Your task to perform on an android device: toggle translation in the chrome app Image 0: 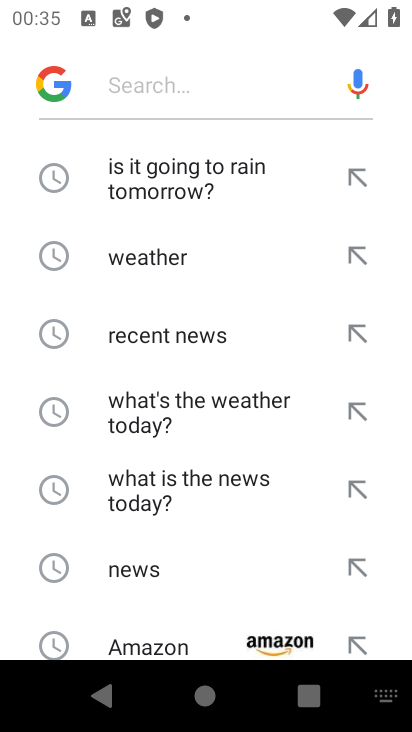
Step 0: press home button
Your task to perform on an android device: toggle translation in the chrome app Image 1: 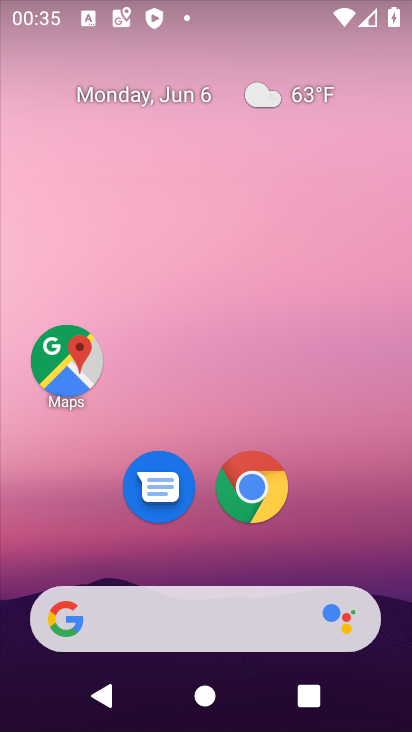
Step 1: click (248, 486)
Your task to perform on an android device: toggle translation in the chrome app Image 2: 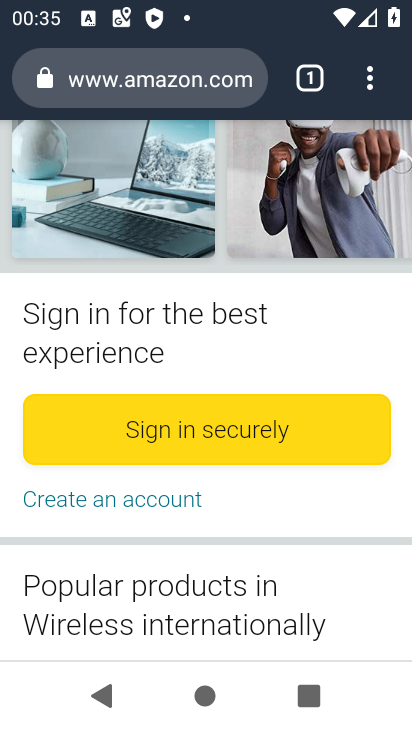
Step 2: click (367, 85)
Your task to perform on an android device: toggle translation in the chrome app Image 3: 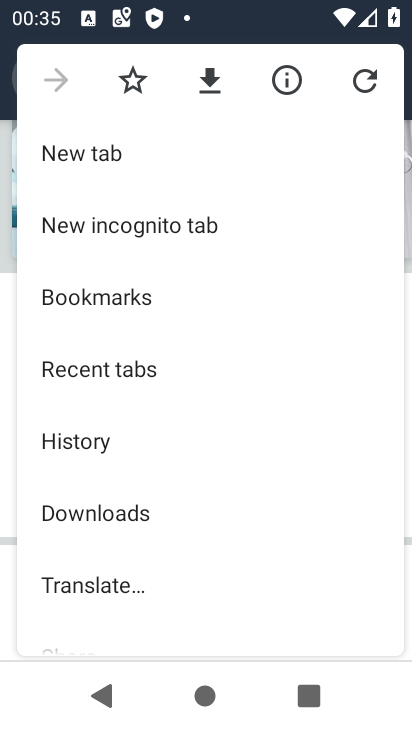
Step 3: drag from (207, 298) to (224, 181)
Your task to perform on an android device: toggle translation in the chrome app Image 4: 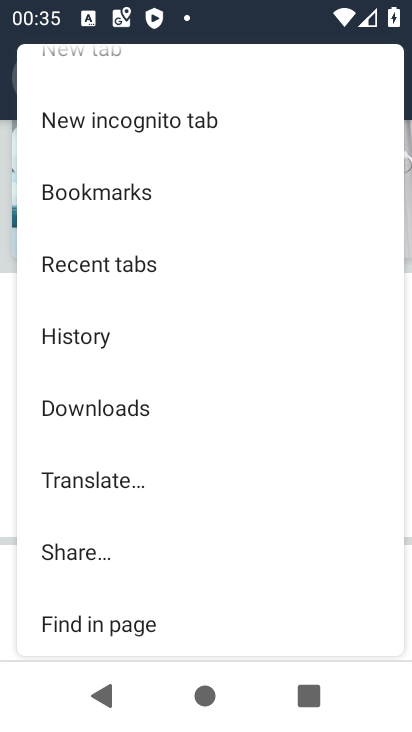
Step 4: drag from (221, 375) to (227, 150)
Your task to perform on an android device: toggle translation in the chrome app Image 5: 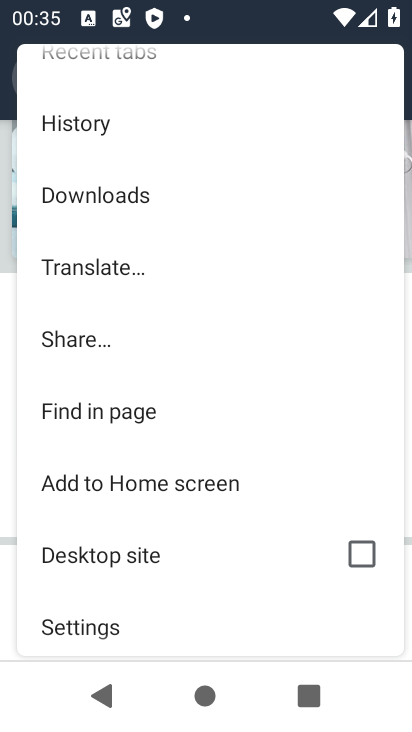
Step 5: drag from (212, 647) to (266, 205)
Your task to perform on an android device: toggle translation in the chrome app Image 6: 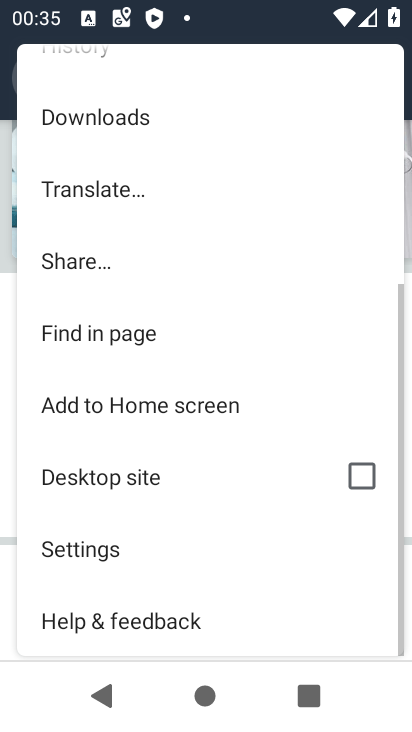
Step 6: click (82, 551)
Your task to perform on an android device: toggle translation in the chrome app Image 7: 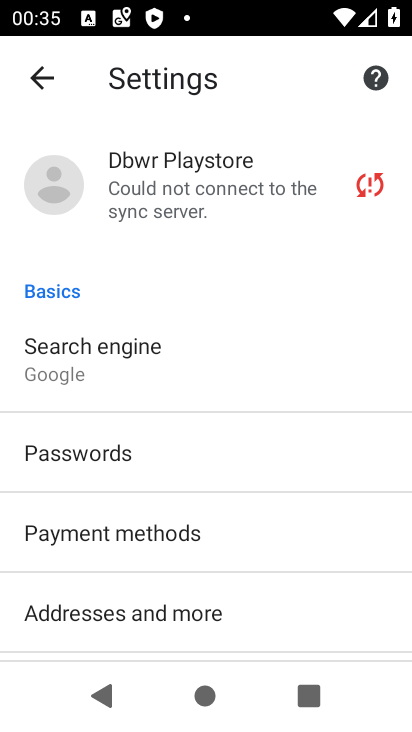
Step 7: drag from (280, 627) to (226, 51)
Your task to perform on an android device: toggle translation in the chrome app Image 8: 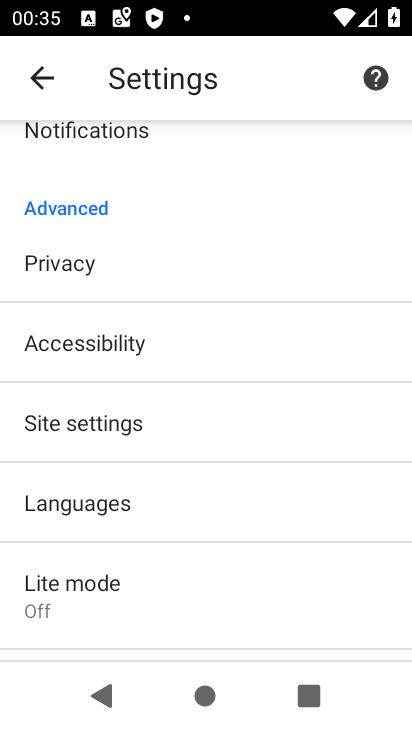
Step 8: click (77, 496)
Your task to perform on an android device: toggle translation in the chrome app Image 9: 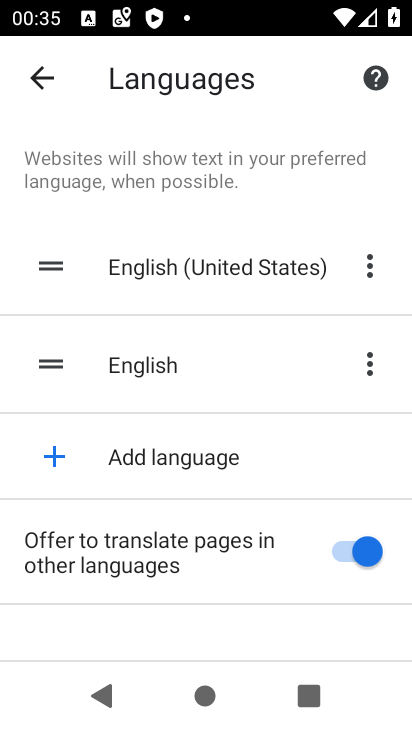
Step 9: click (341, 555)
Your task to perform on an android device: toggle translation in the chrome app Image 10: 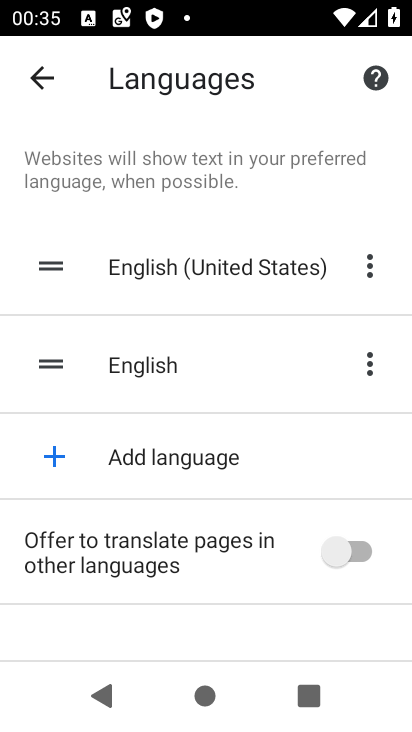
Step 10: task complete